Your task to perform on an android device: Open my contact list Image 0: 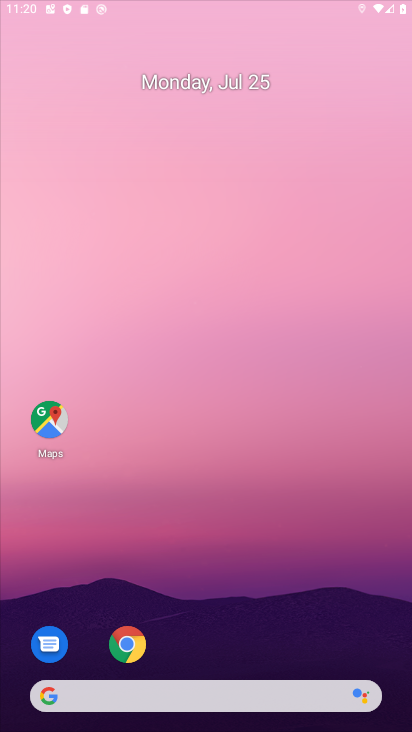
Step 0: drag from (259, 642) to (325, 158)
Your task to perform on an android device: Open my contact list Image 1: 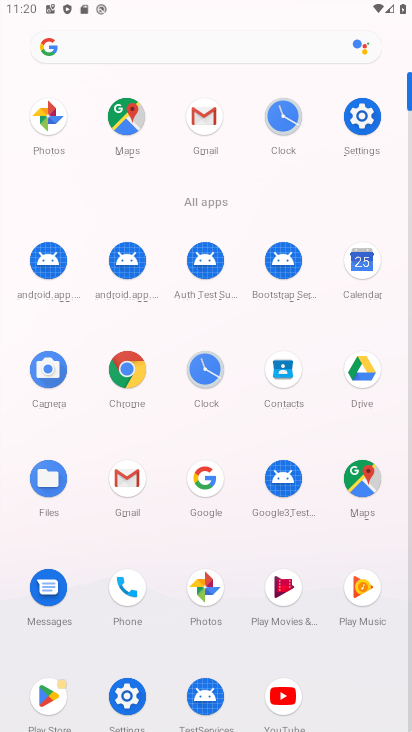
Step 1: press home button
Your task to perform on an android device: Open my contact list Image 2: 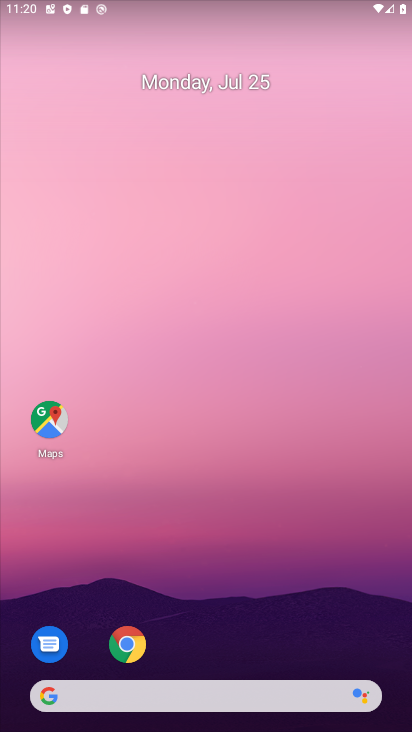
Step 2: drag from (234, 665) to (253, 201)
Your task to perform on an android device: Open my contact list Image 3: 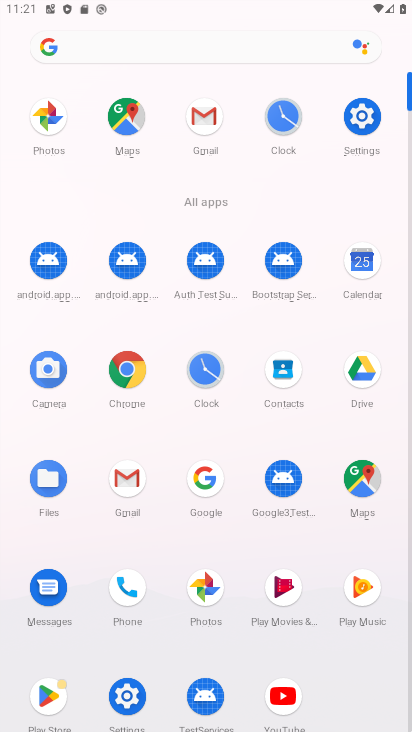
Step 3: click (282, 372)
Your task to perform on an android device: Open my contact list Image 4: 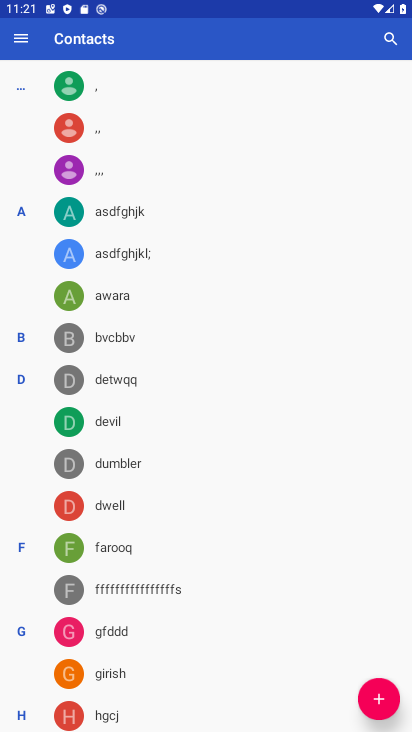
Step 4: task complete